Your task to perform on an android device: Open maps Image 0: 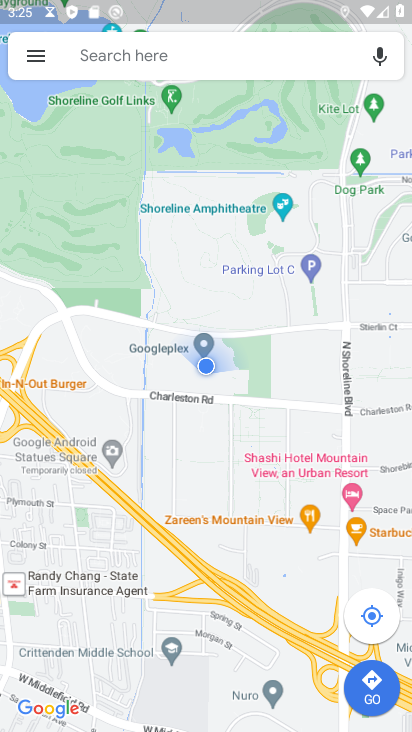
Step 0: task complete